Your task to perform on an android device: move a message to another label in the gmail app Image 0: 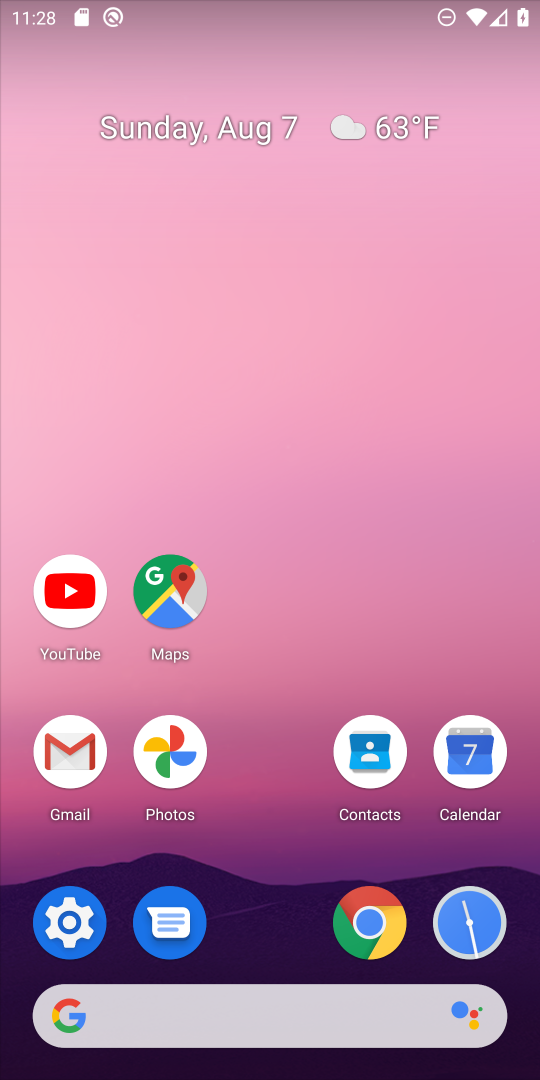
Step 0: click (81, 744)
Your task to perform on an android device: move a message to another label in the gmail app Image 1: 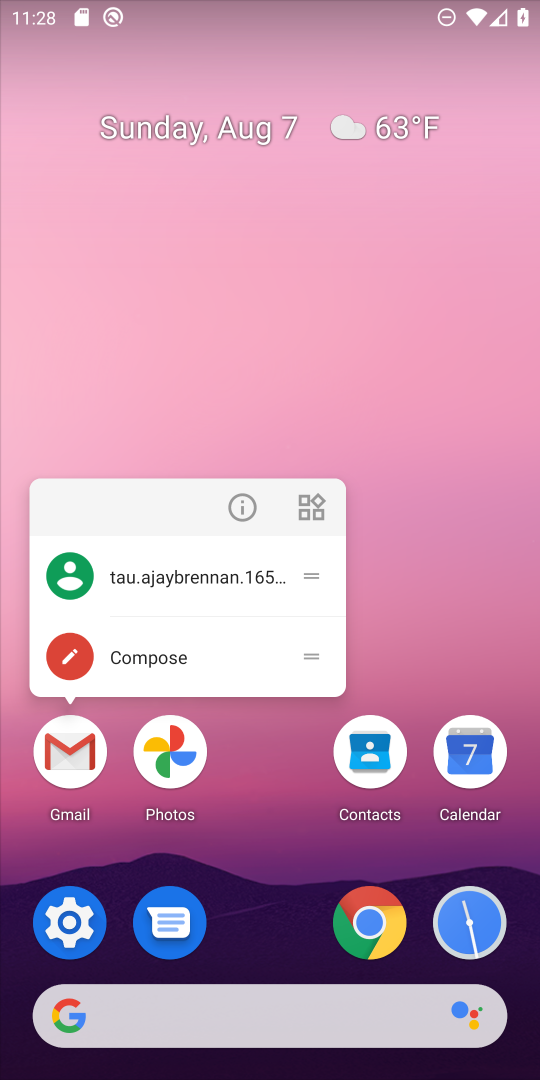
Step 1: click (75, 756)
Your task to perform on an android device: move a message to another label in the gmail app Image 2: 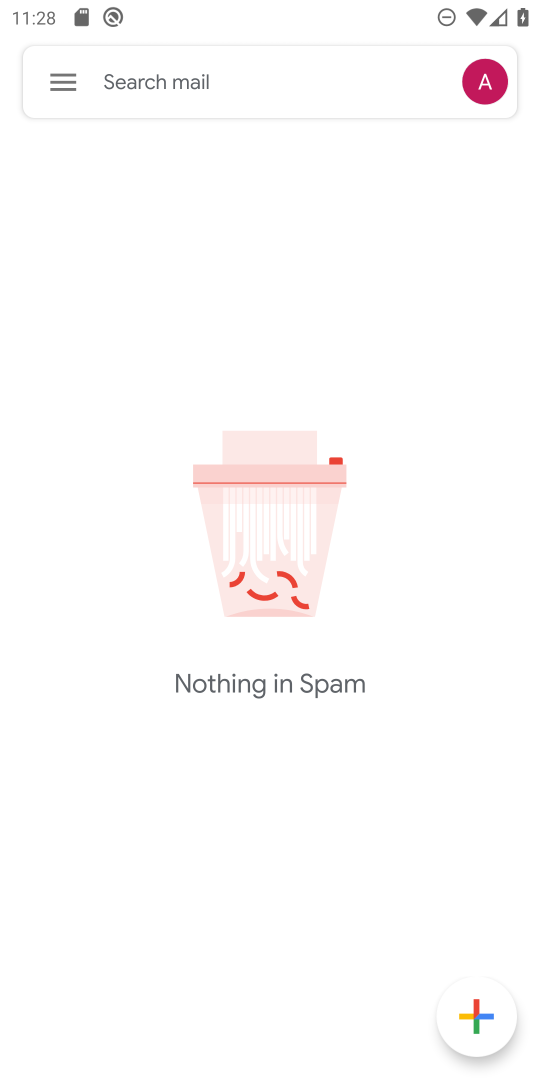
Step 2: click (66, 84)
Your task to perform on an android device: move a message to another label in the gmail app Image 3: 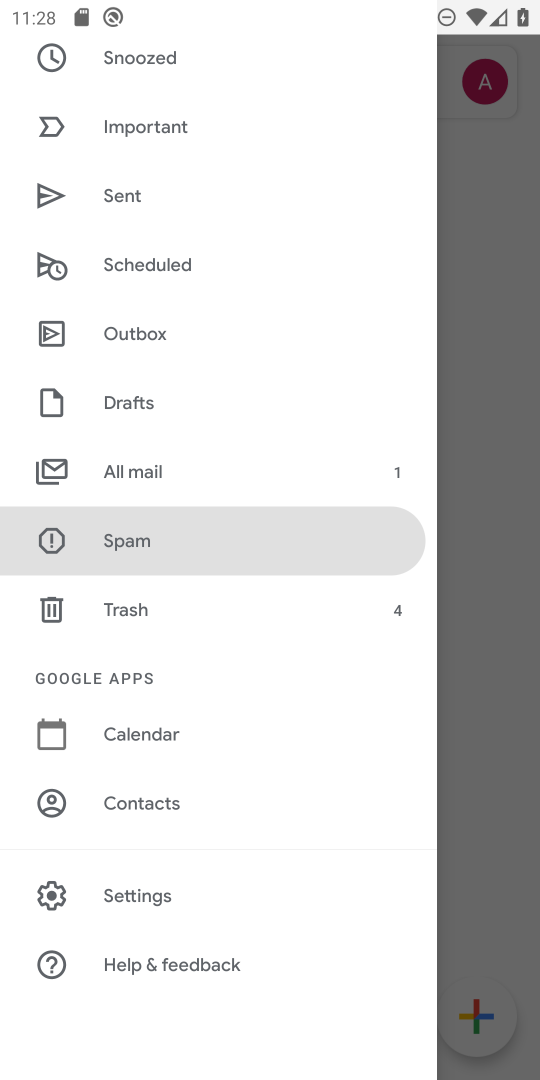
Step 3: click (128, 470)
Your task to perform on an android device: move a message to another label in the gmail app Image 4: 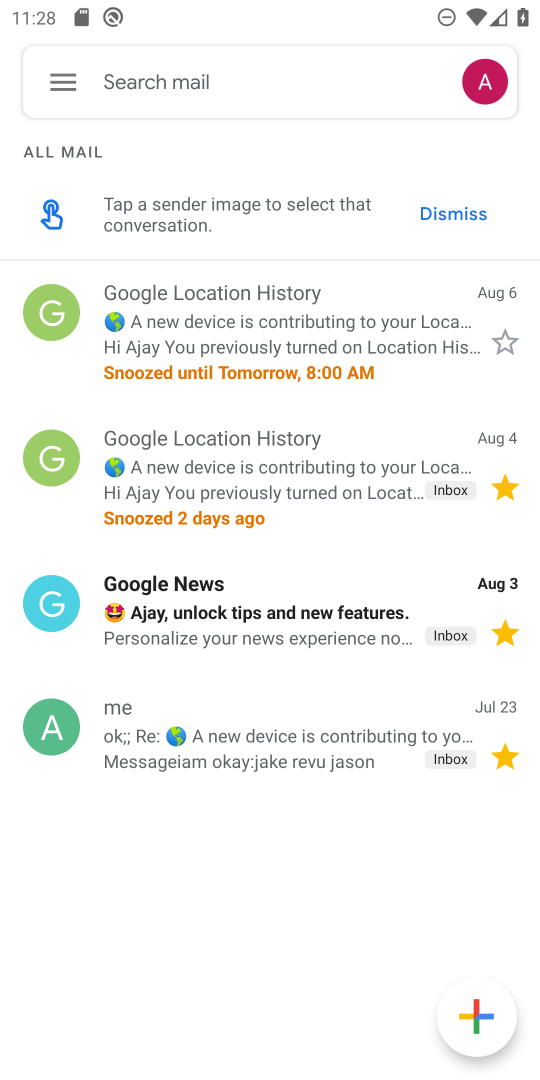
Step 4: click (310, 285)
Your task to perform on an android device: move a message to another label in the gmail app Image 5: 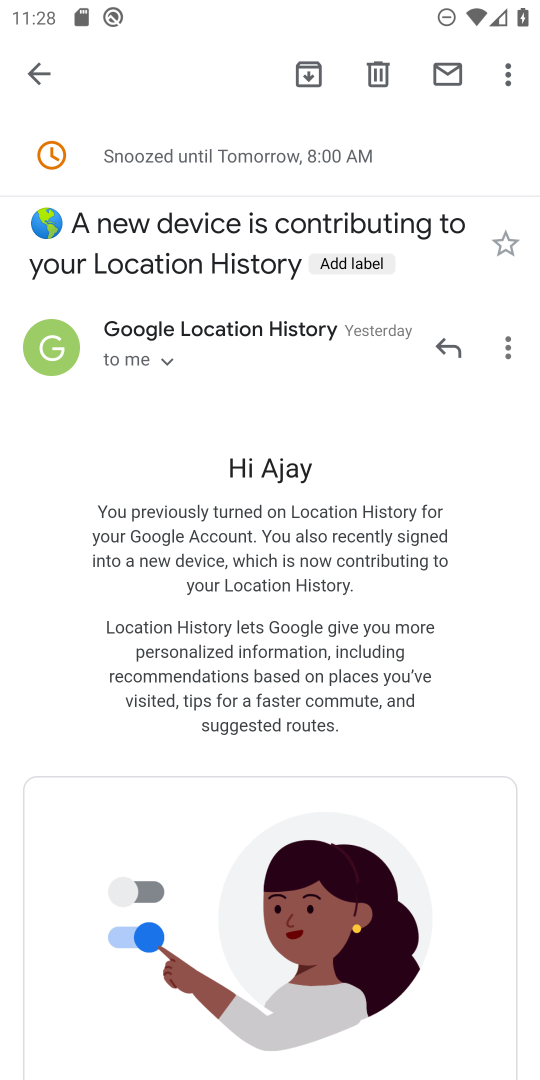
Step 5: click (504, 78)
Your task to perform on an android device: move a message to another label in the gmail app Image 6: 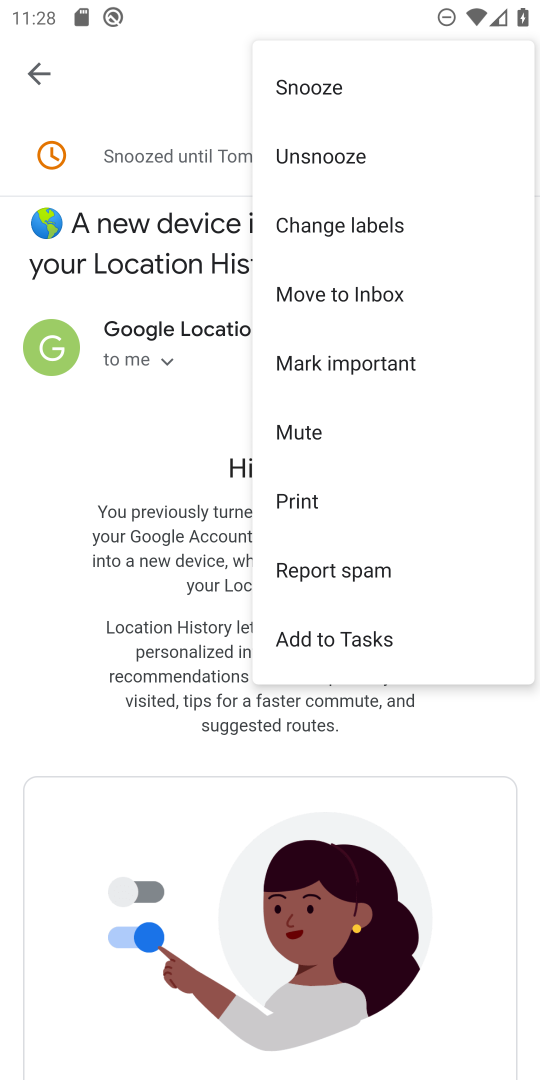
Step 6: click (340, 216)
Your task to perform on an android device: move a message to another label in the gmail app Image 7: 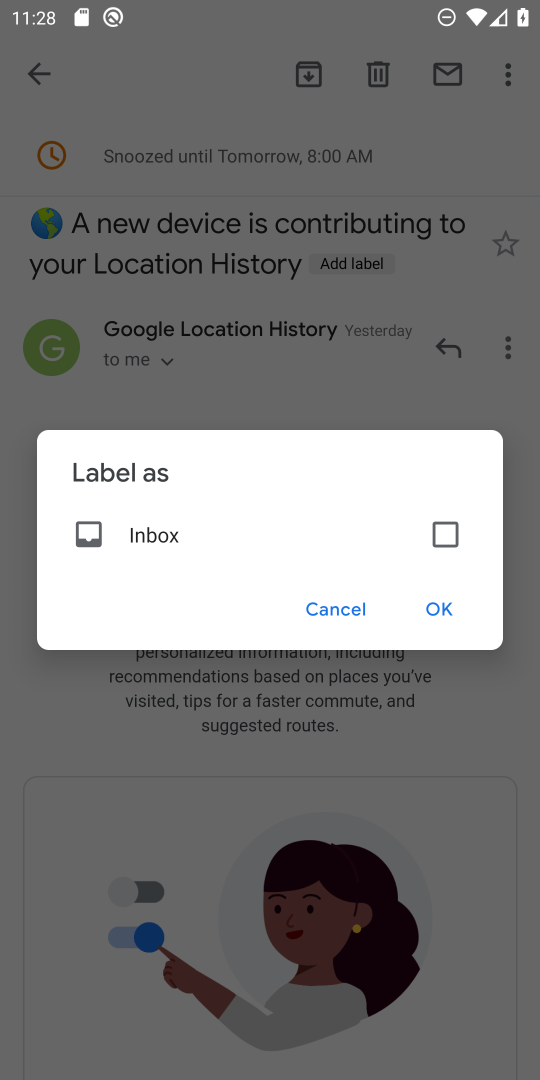
Step 7: click (450, 528)
Your task to perform on an android device: move a message to another label in the gmail app Image 8: 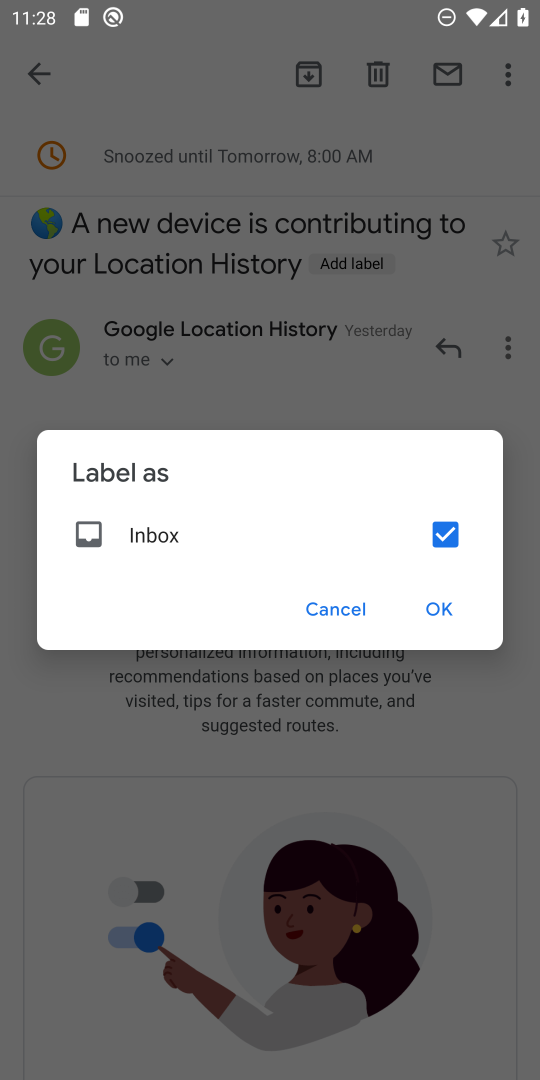
Step 8: click (440, 617)
Your task to perform on an android device: move a message to another label in the gmail app Image 9: 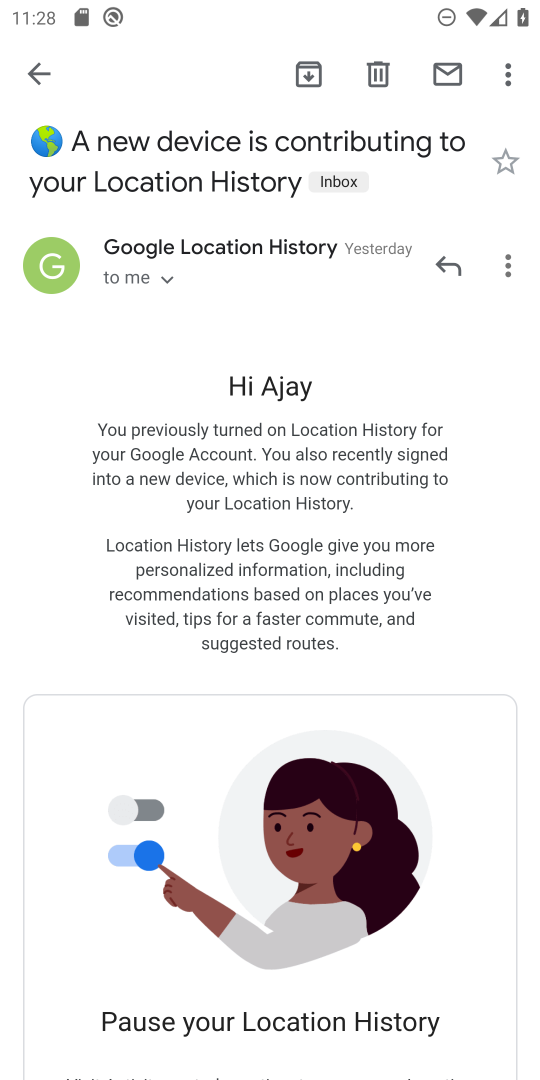
Step 9: task complete